Your task to perform on an android device: turn off smart reply in the gmail app Image 0: 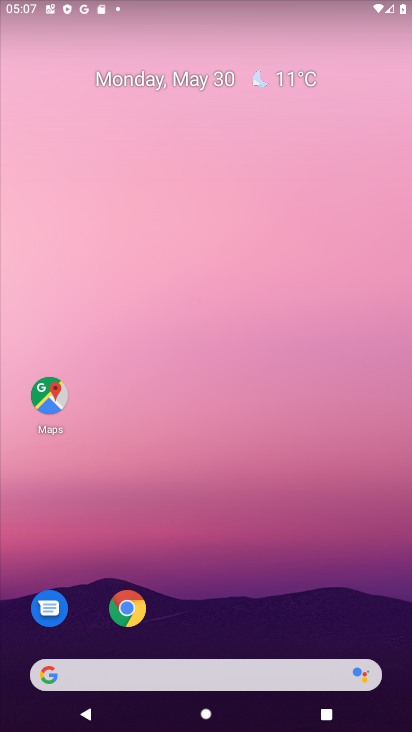
Step 0: drag from (189, 646) to (236, 408)
Your task to perform on an android device: turn off smart reply in the gmail app Image 1: 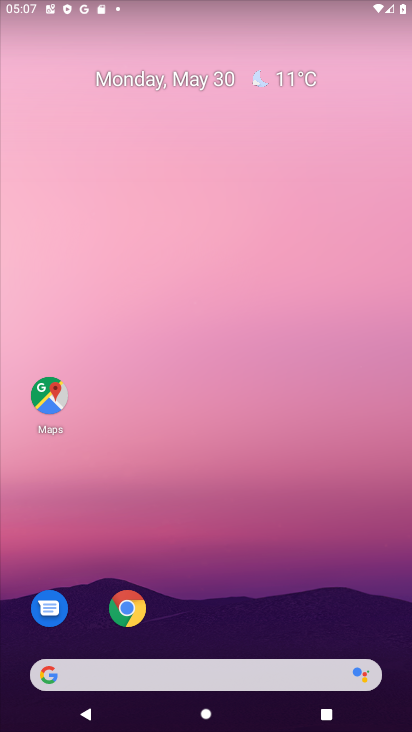
Step 1: drag from (241, 646) to (244, 285)
Your task to perform on an android device: turn off smart reply in the gmail app Image 2: 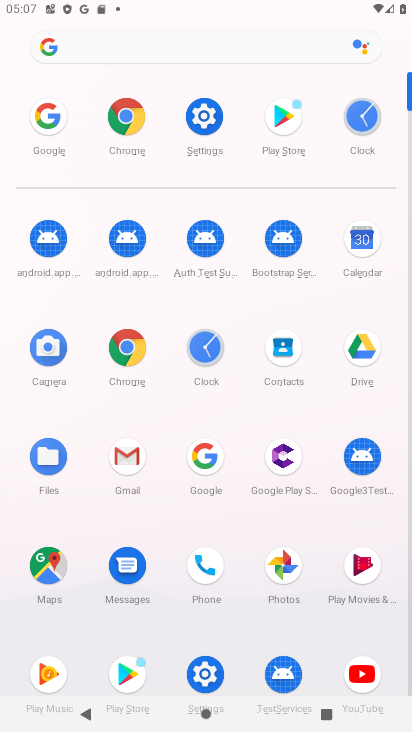
Step 2: click (136, 459)
Your task to perform on an android device: turn off smart reply in the gmail app Image 3: 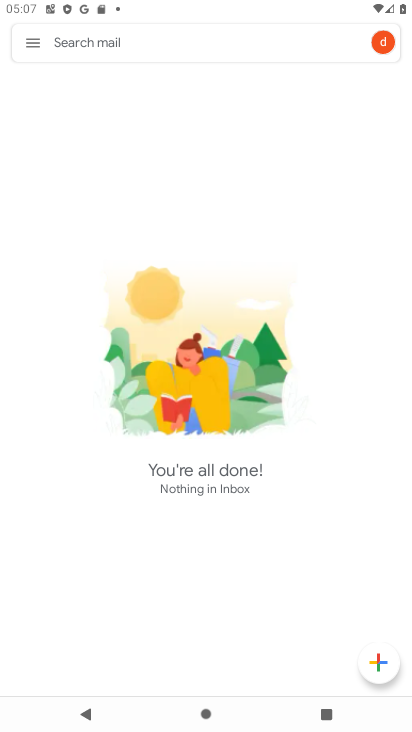
Step 3: click (33, 43)
Your task to perform on an android device: turn off smart reply in the gmail app Image 4: 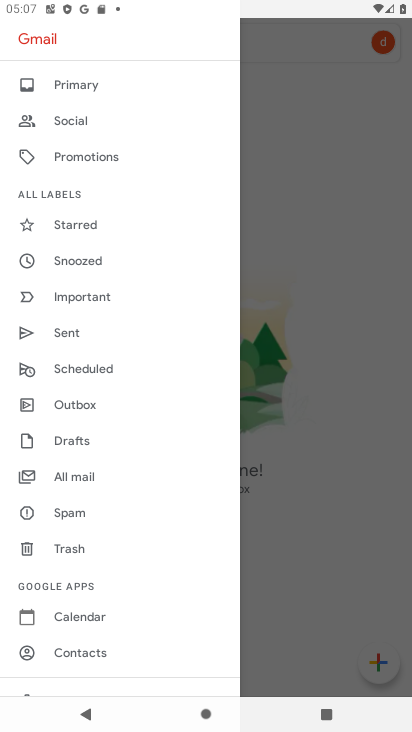
Step 4: drag from (91, 649) to (91, 345)
Your task to perform on an android device: turn off smart reply in the gmail app Image 5: 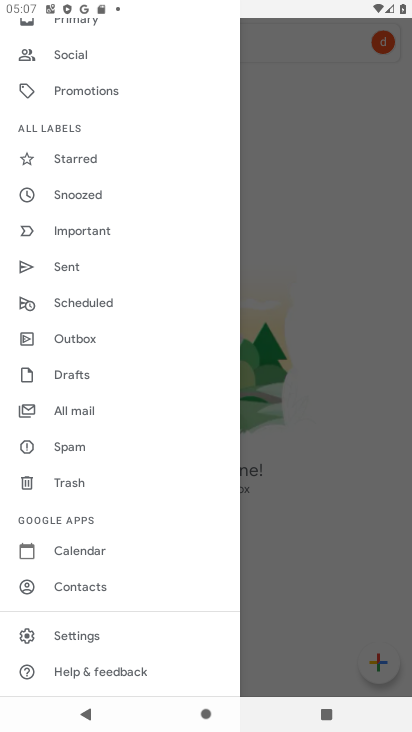
Step 5: click (94, 635)
Your task to perform on an android device: turn off smart reply in the gmail app Image 6: 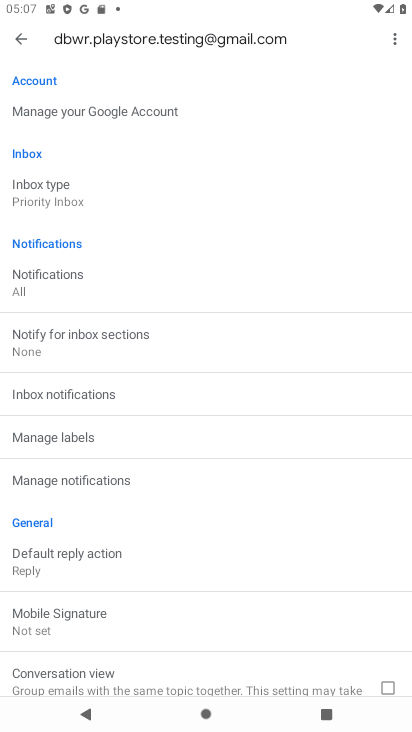
Step 6: drag from (130, 681) to (151, 382)
Your task to perform on an android device: turn off smart reply in the gmail app Image 7: 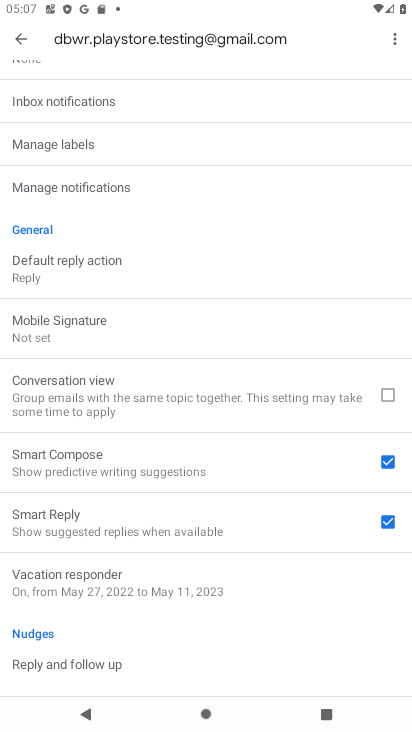
Step 7: click (387, 519)
Your task to perform on an android device: turn off smart reply in the gmail app Image 8: 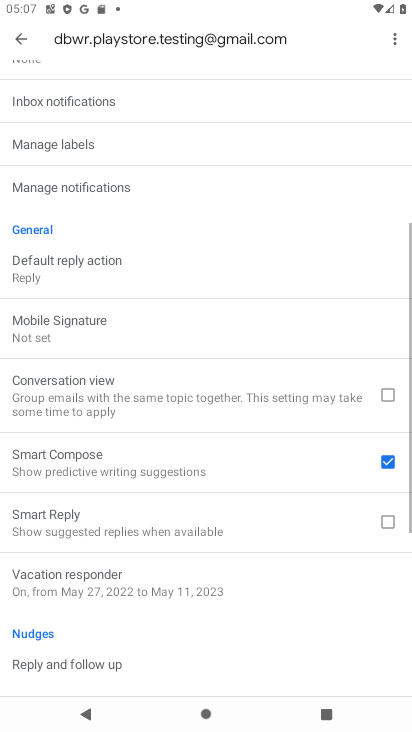
Step 8: task complete